Your task to perform on an android device: Open Yahoo.com Image 0: 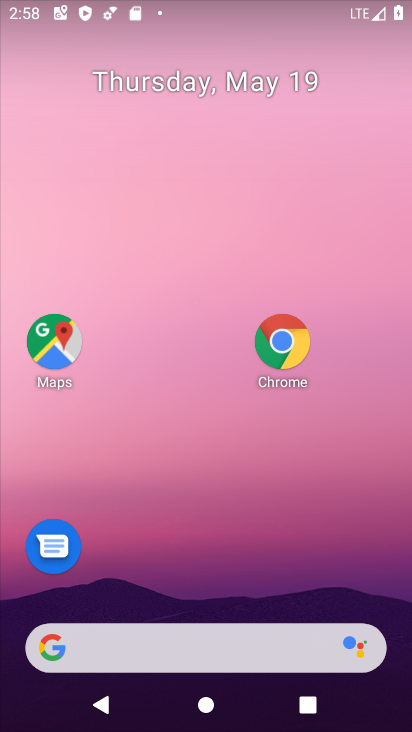
Step 0: press home button
Your task to perform on an android device: Open Yahoo.com Image 1: 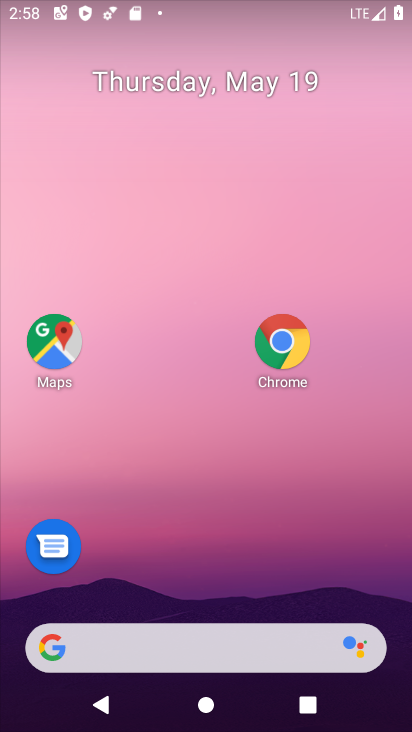
Step 1: click (286, 336)
Your task to perform on an android device: Open Yahoo.com Image 2: 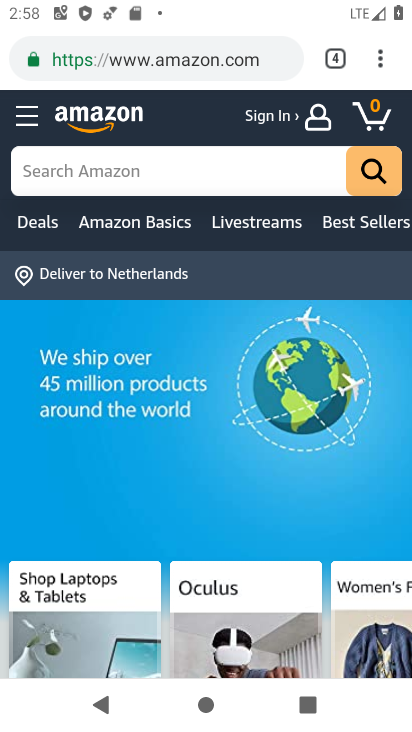
Step 2: drag from (379, 64) to (259, 123)
Your task to perform on an android device: Open Yahoo.com Image 3: 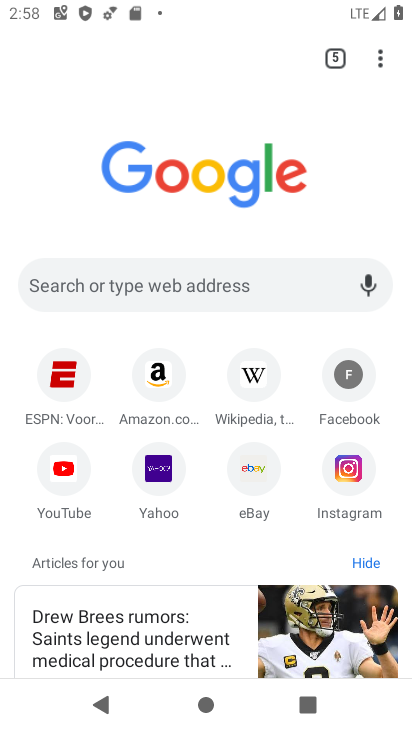
Step 3: click (161, 467)
Your task to perform on an android device: Open Yahoo.com Image 4: 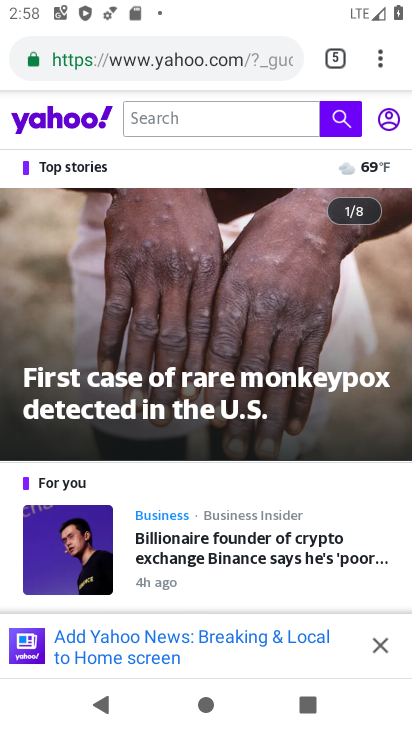
Step 4: task complete